Your task to perform on an android device: turn on bluetooth scan Image 0: 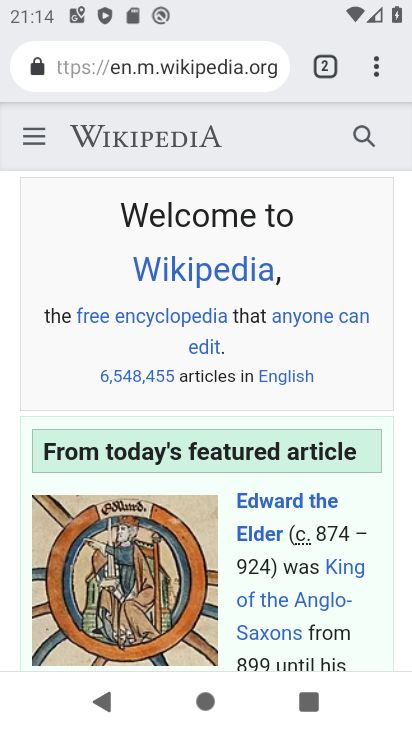
Step 0: press home button
Your task to perform on an android device: turn on bluetooth scan Image 1: 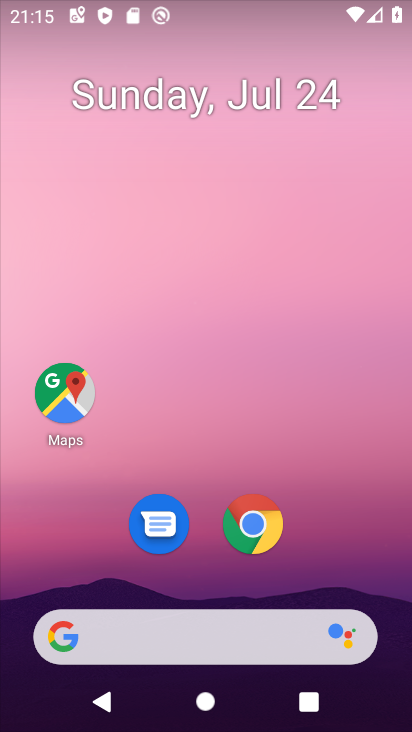
Step 1: drag from (196, 549) to (295, 122)
Your task to perform on an android device: turn on bluetooth scan Image 2: 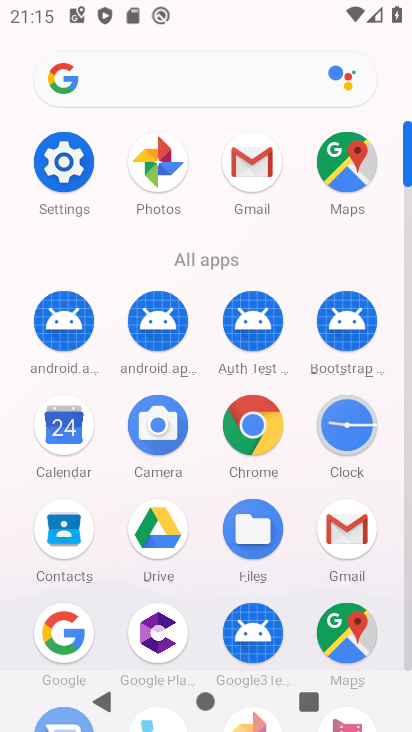
Step 2: click (62, 159)
Your task to perform on an android device: turn on bluetooth scan Image 3: 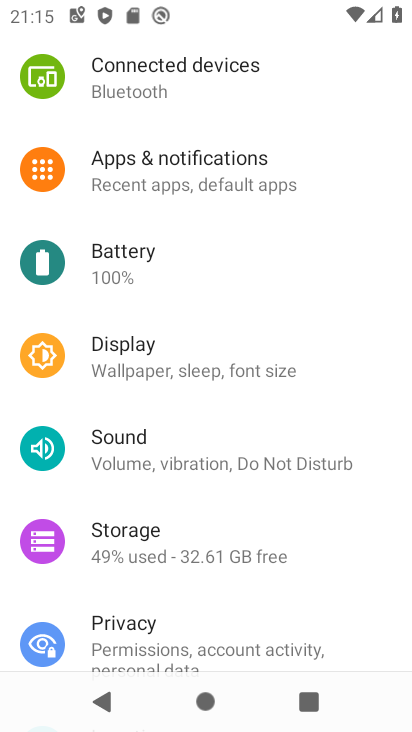
Step 3: drag from (240, 506) to (317, 127)
Your task to perform on an android device: turn on bluetooth scan Image 4: 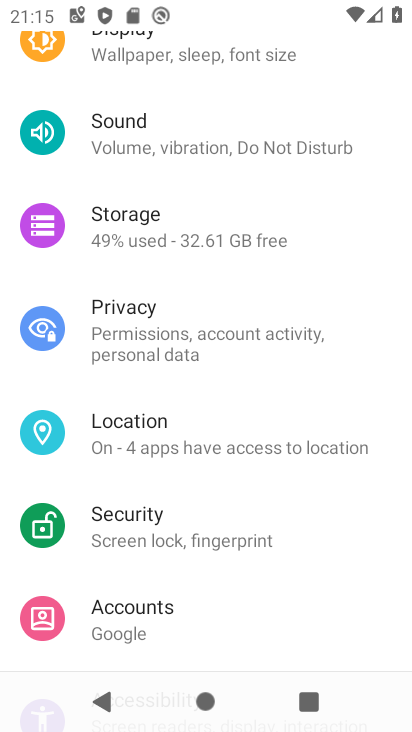
Step 4: click (199, 420)
Your task to perform on an android device: turn on bluetooth scan Image 5: 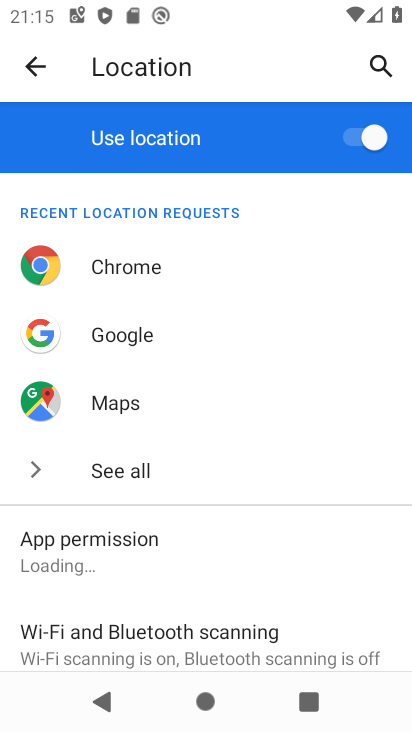
Step 5: drag from (204, 587) to (285, 280)
Your task to perform on an android device: turn on bluetooth scan Image 6: 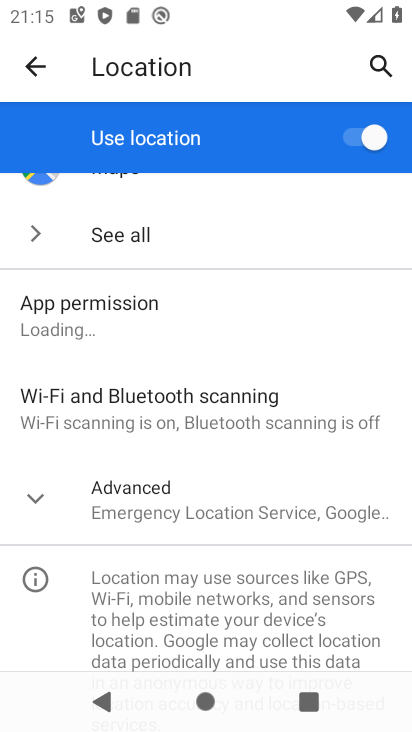
Step 6: click (196, 416)
Your task to perform on an android device: turn on bluetooth scan Image 7: 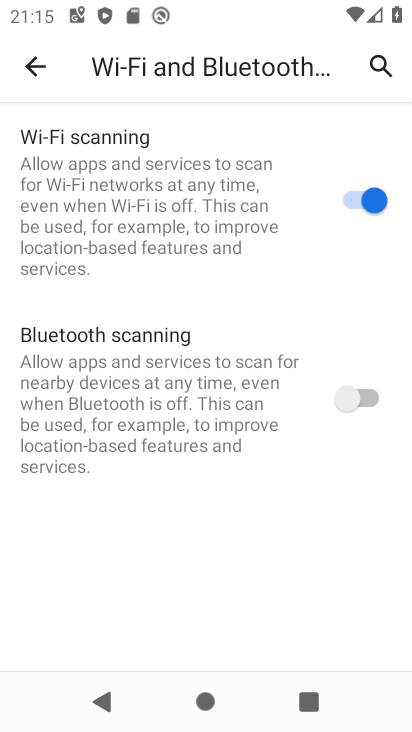
Step 7: click (367, 397)
Your task to perform on an android device: turn on bluetooth scan Image 8: 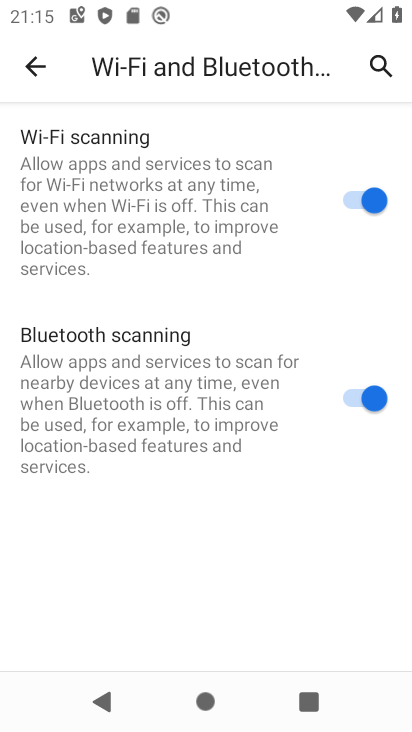
Step 8: task complete